Your task to perform on an android device: Search for sushi restaurants on Maps Image 0: 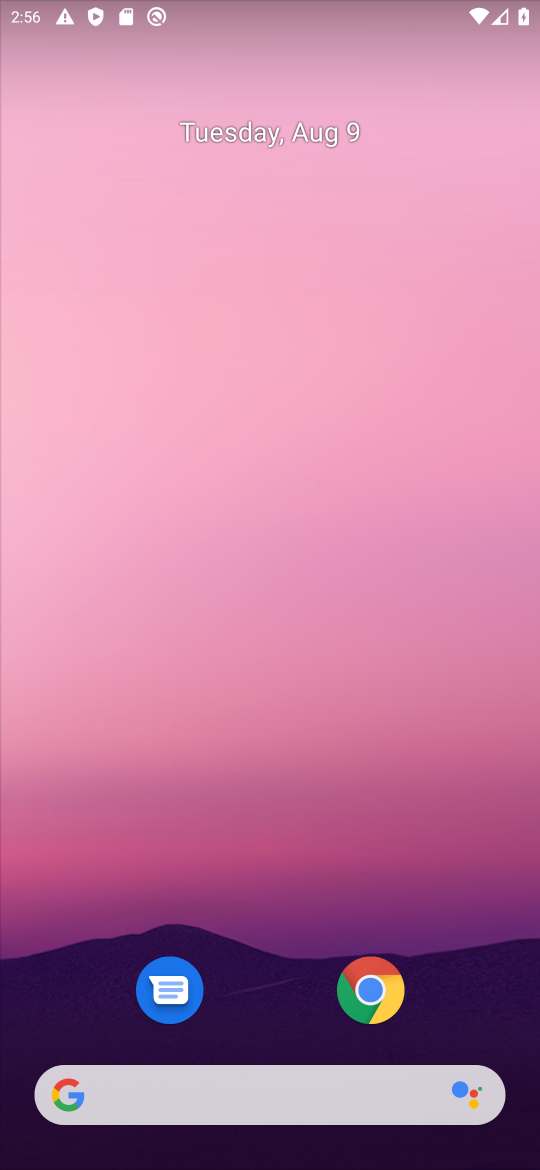
Step 0: drag from (368, 1106) to (263, 80)
Your task to perform on an android device: Search for sushi restaurants on Maps Image 1: 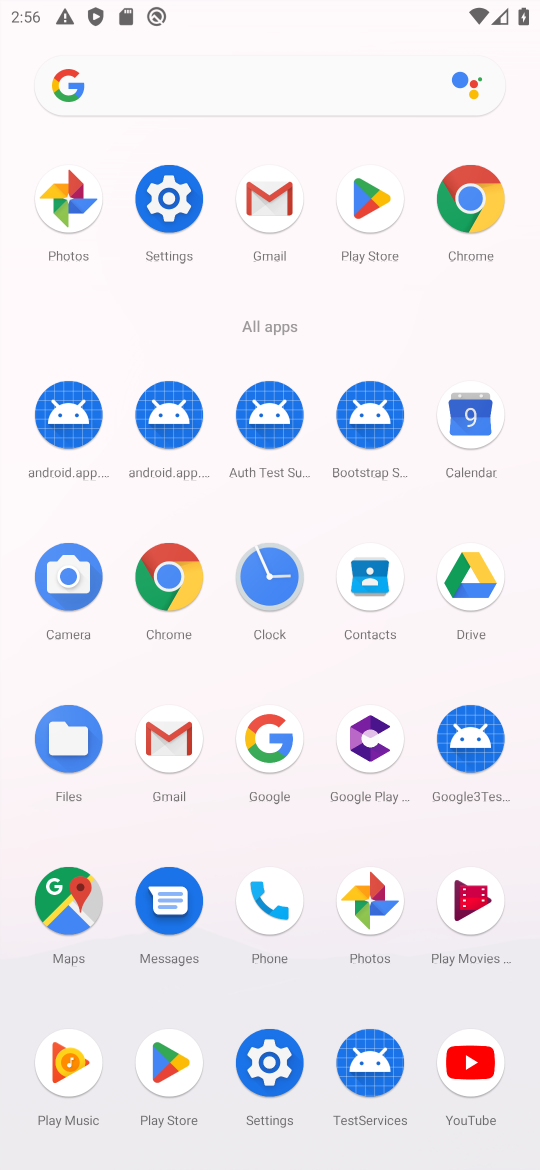
Step 1: click (36, 907)
Your task to perform on an android device: Search for sushi restaurants on Maps Image 2: 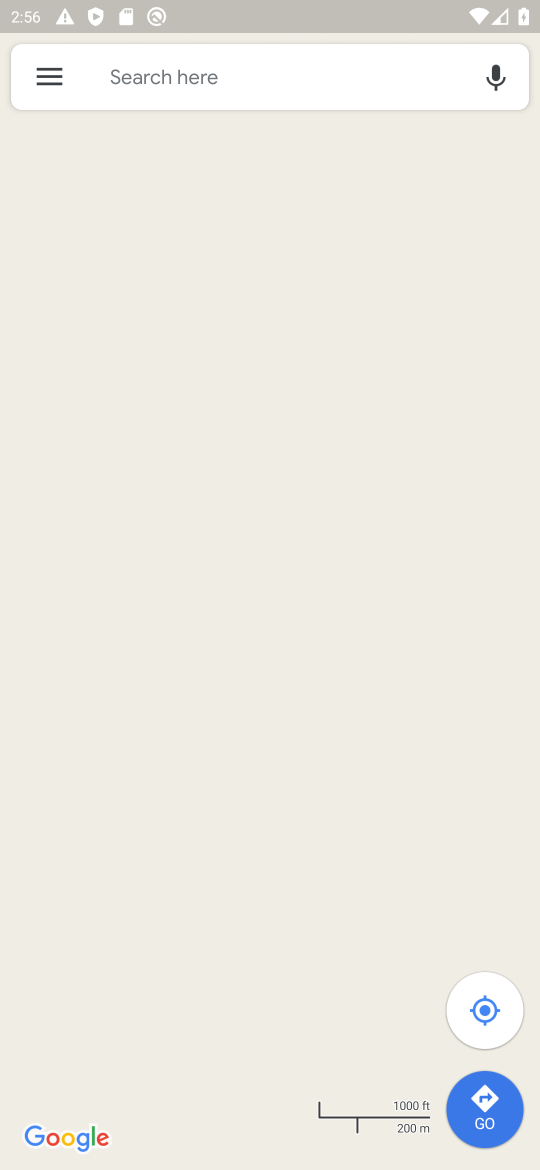
Step 2: click (430, 67)
Your task to perform on an android device: Search for sushi restaurants on Maps Image 3: 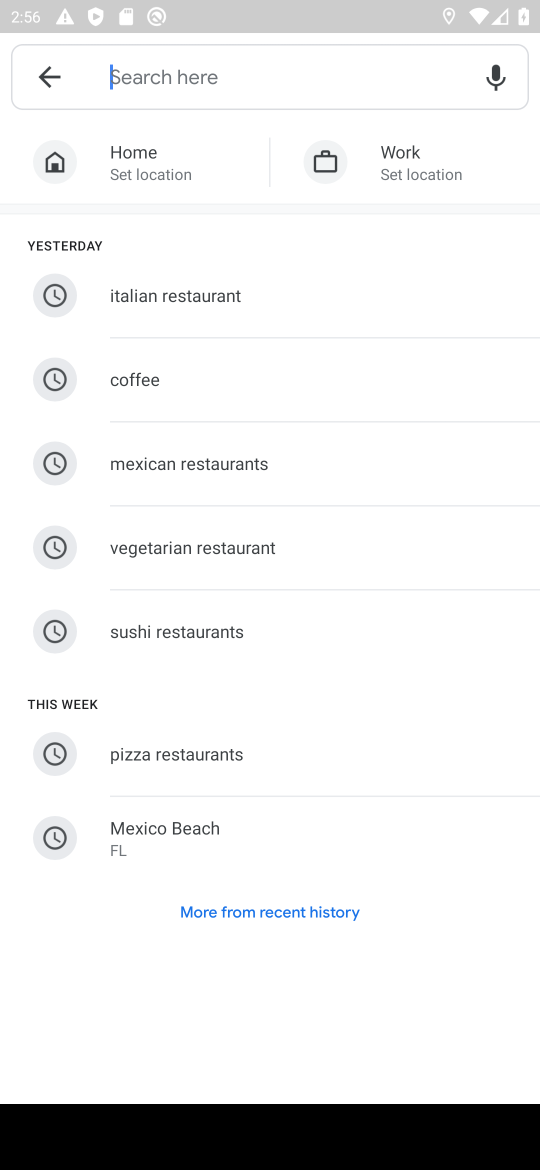
Step 3: type "sushi restaurant"
Your task to perform on an android device: Search for sushi restaurants on Maps Image 4: 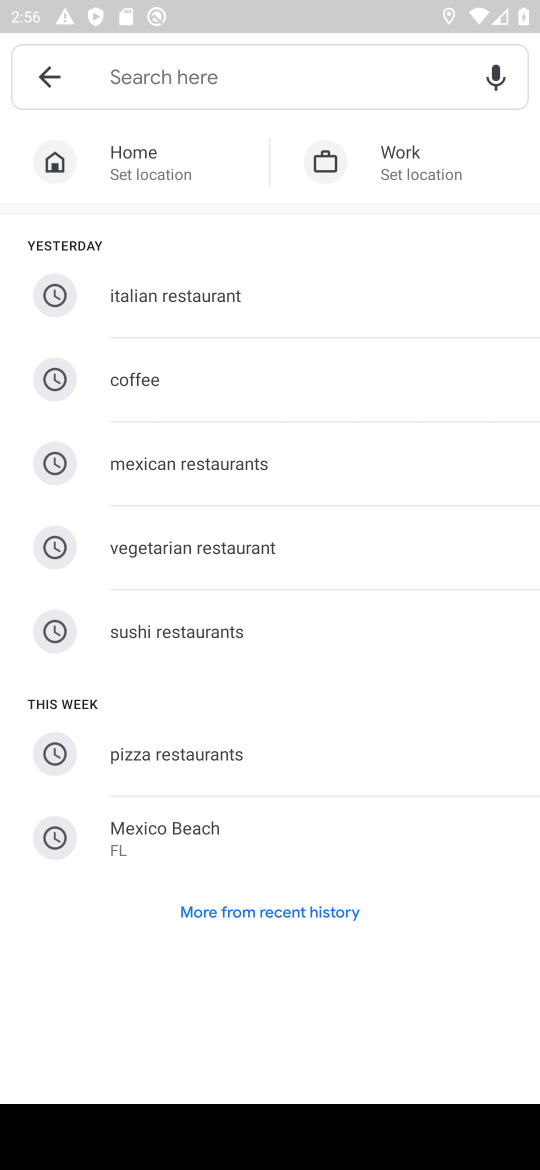
Step 4: click (146, 622)
Your task to perform on an android device: Search for sushi restaurants on Maps Image 5: 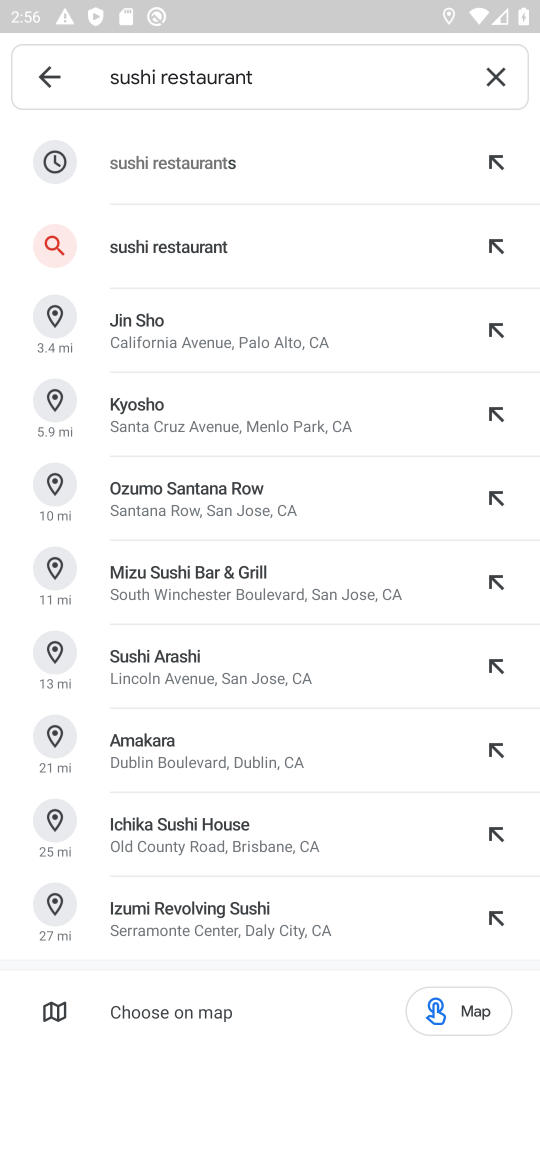
Step 5: click (164, 256)
Your task to perform on an android device: Search for sushi restaurants on Maps Image 6: 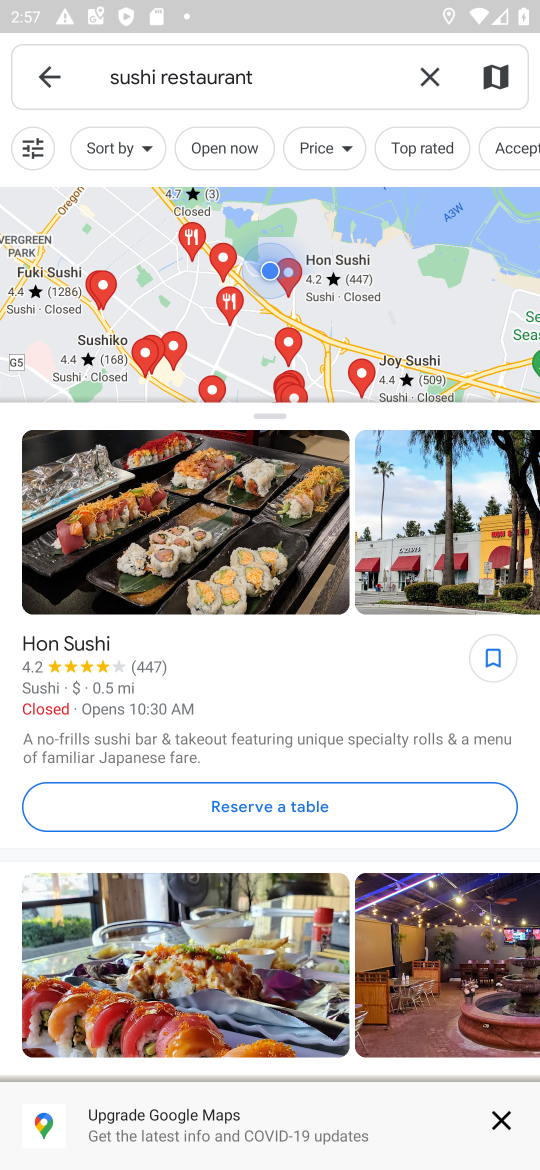
Step 6: task complete